Your task to perform on an android device: Show me the alarms in the clock app Image 0: 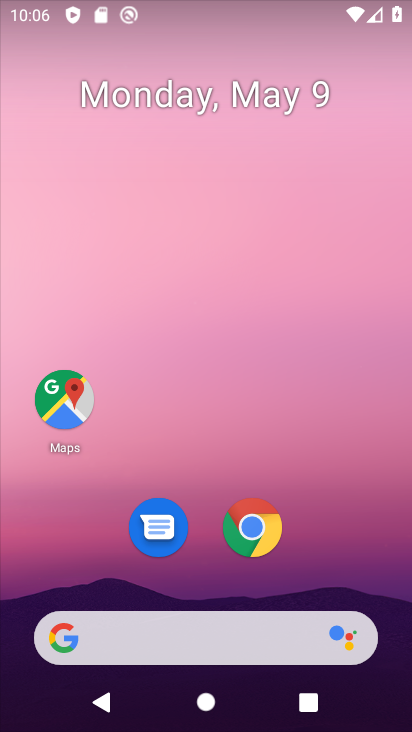
Step 0: drag from (334, 567) to (256, 15)
Your task to perform on an android device: Show me the alarms in the clock app Image 1: 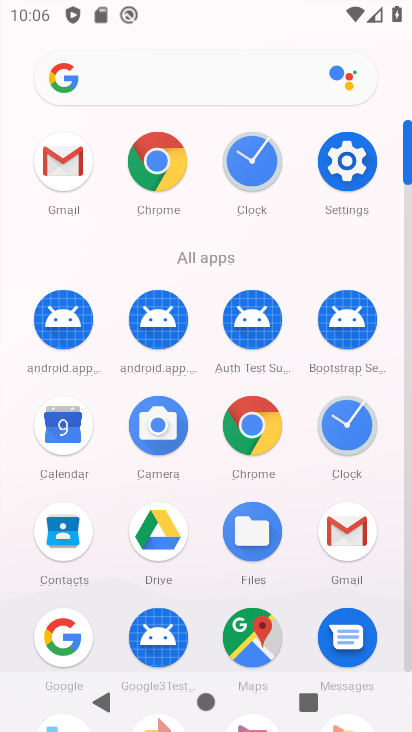
Step 1: click (348, 426)
Your task to perform on an android device: Show me the alarms in the clock app Image 2: 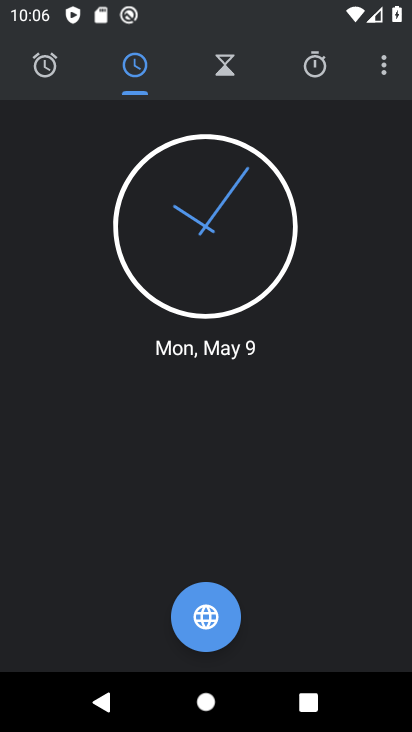
Step 2: click (44, 67)
Your task to perform on an android device: Show me the alarms in the clock app Image 3: 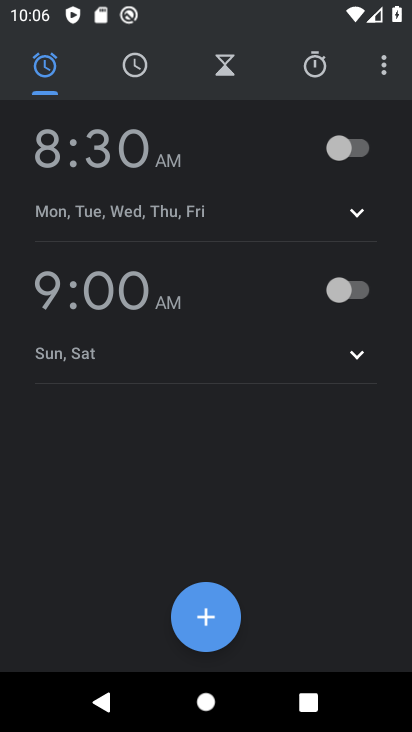
Step 3: task complete